Your task to perform on an android device: toggle translation in the chrome app Image 0: 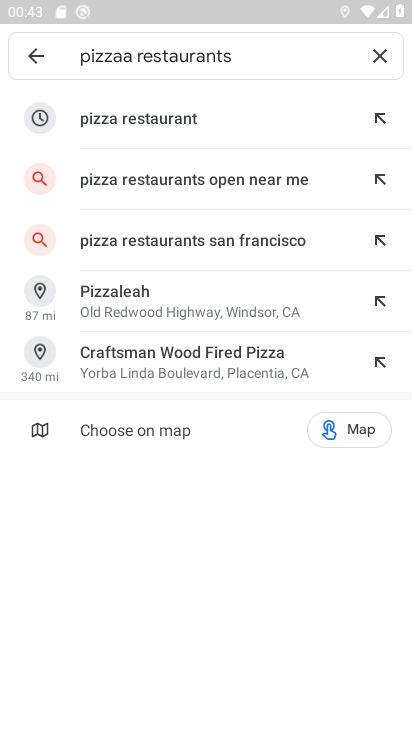
Step 0: press home button
Your task to perform on an android device: toggle translation in the chrome app Image 1: 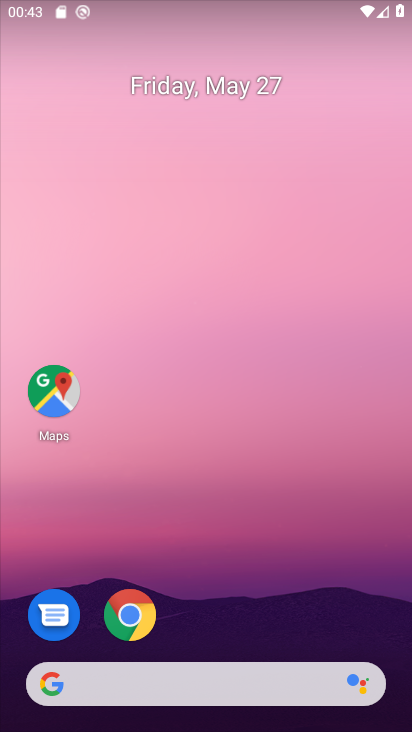
Step 1: drag from (326, 587) to (352, 189)
Your task to perform on an android device: toggle translation in the chrome app Image 2: 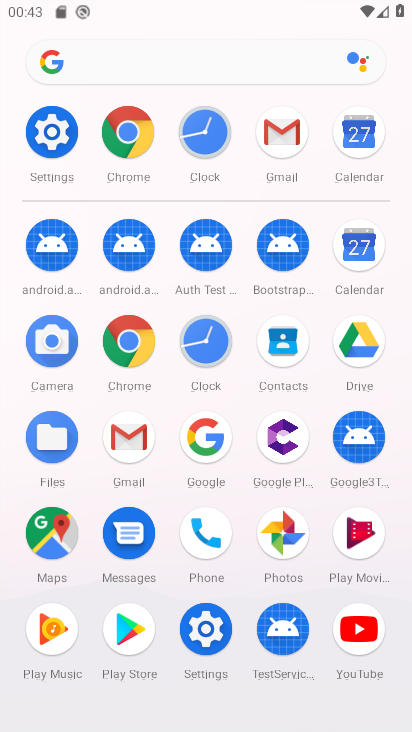
Step 2: click (129, 343)
Your task to perform on an android device: toggle translation in the chrome app Image 3: 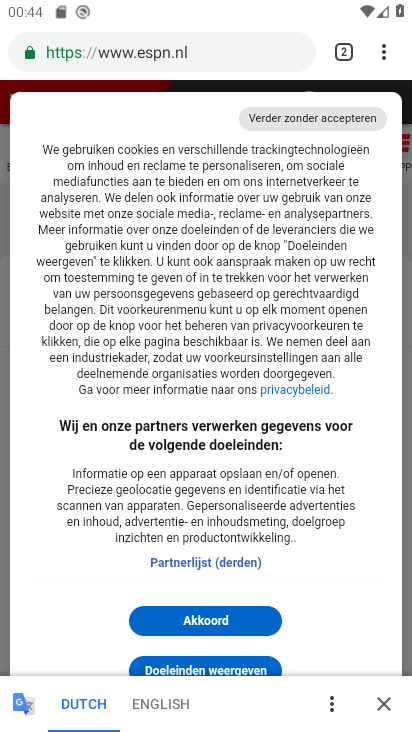
Step 3: click (386, 61)
Your task to perform on an android device: toggle translation in the chrome app Image 4: 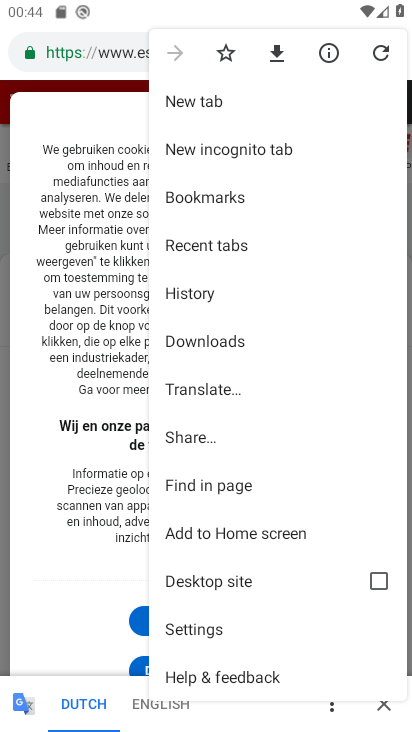
Step 4: drag from (332, 407) to (332, 332)
Your task to perform on an android device: toggle translation in the chrome app Image 5: 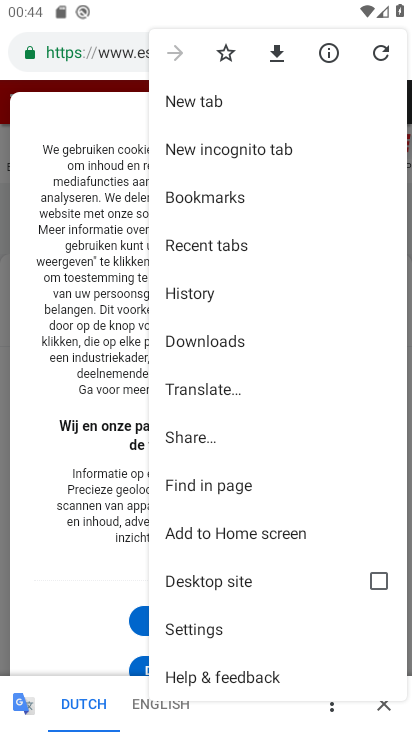
Step 5: click (236, 634)
Your task to perform on an android device: toggle translation in the chrome app Image 6: 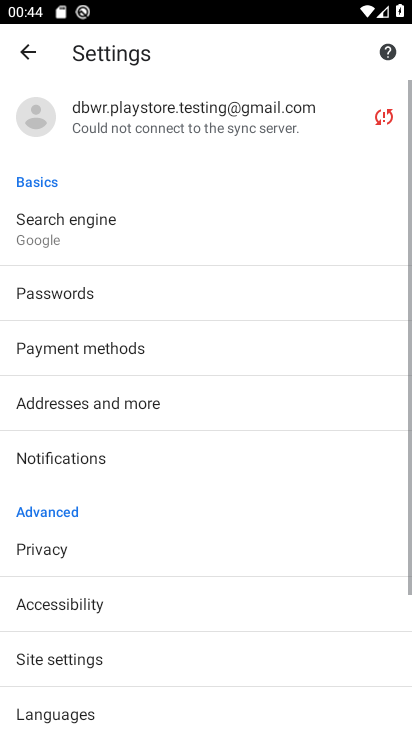
Step 6: drag from (320, 536) to (319, 468)
Your task to perform on an android device: toggle translation in the chrome app Image 7: 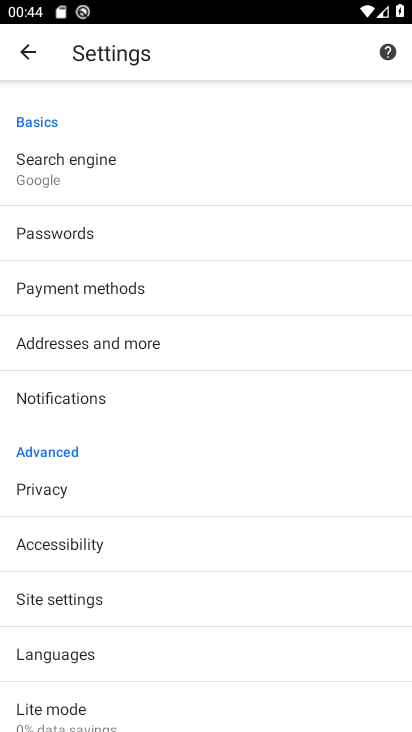
Step 7: drag from (305, 522) to (308, 464)
Your task to perform on an android device: toggle translation in the chrome app Image 8: 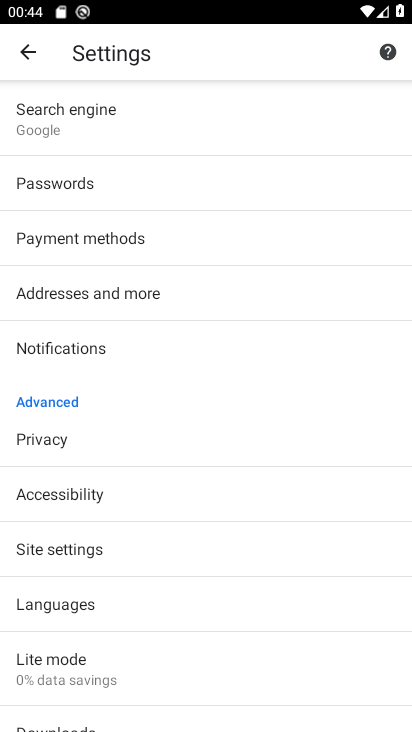
Step 8: drag from (301, 526) to (301, 461)
Your task to perform on an android device: toggle translation in the chrome app Image 9: 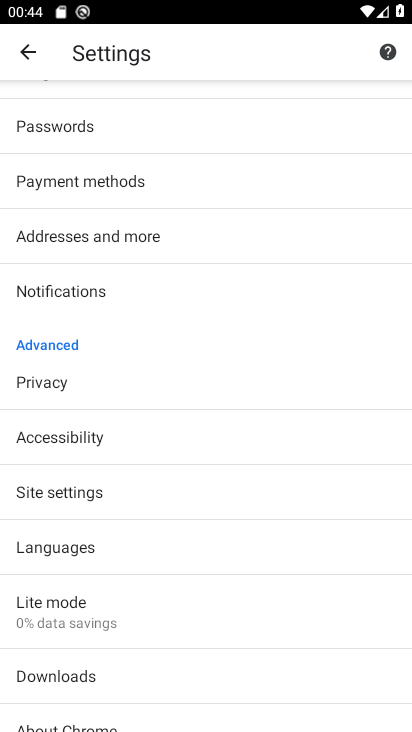
Step 9: drag from (288, 514) to (288, 458)
Your task to perform on an android device: toggle translation in the chrome app Image 10: 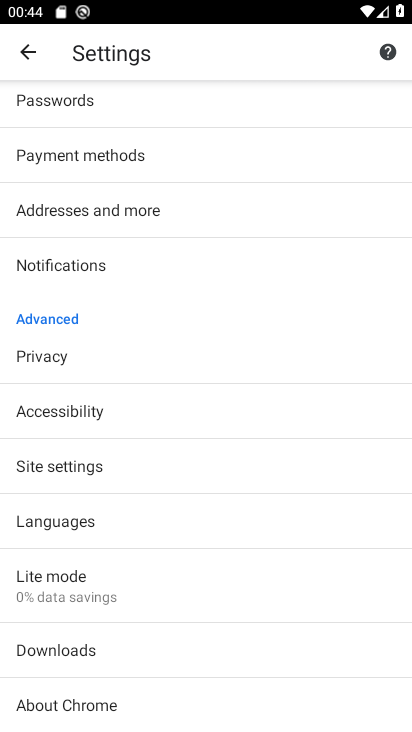
Step 10: drag from (290, 528) to (291, 462)
Your task to perform on an android device: toggle translation in the chrome app Image 11: 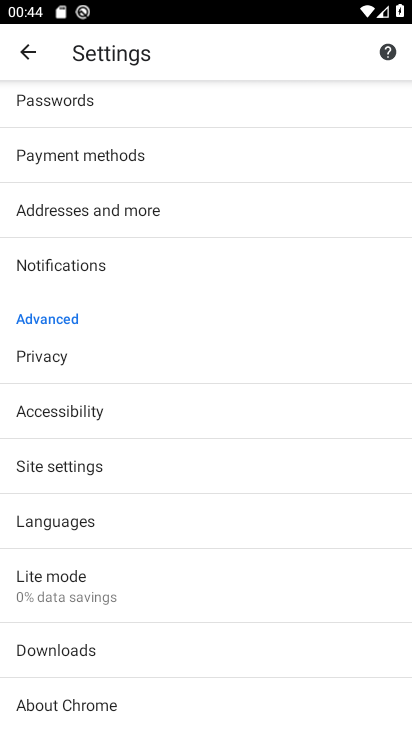
Step 11: click (133, 534)
Your task to perform on an android device: toggle translation in the chrome app Image 12: 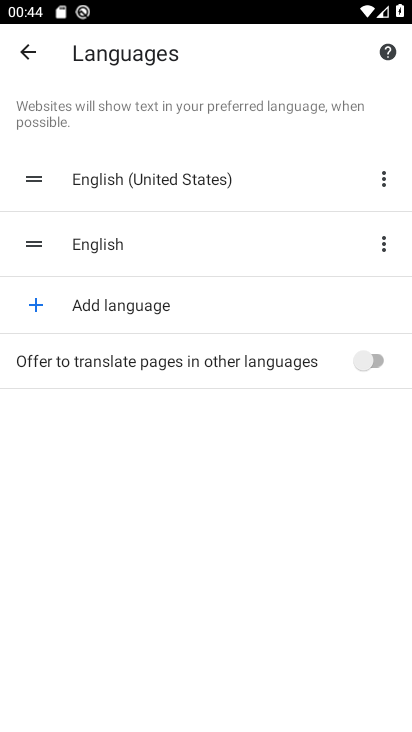
Step 12: click (351, 373)
Your task to perform on an android device: toggle translation in the chrome app Image 13: 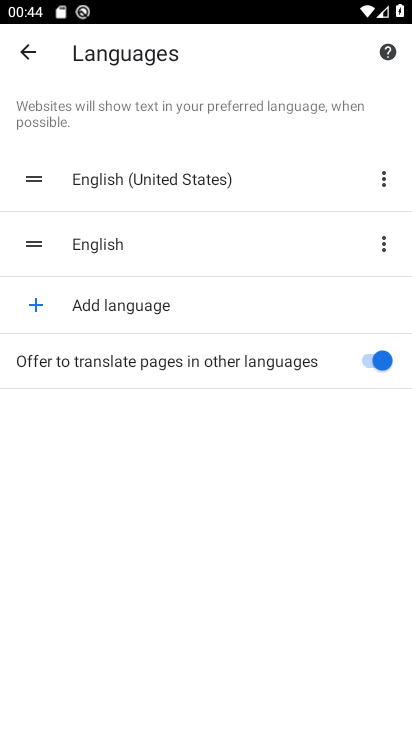
Step 13: task complete